Your task to perform on an android device: Go to CNN.com Image 0: 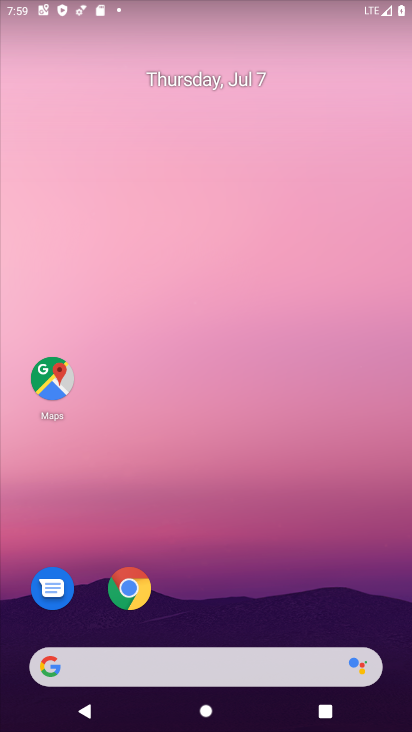
Step 0: drag from (329, 572) to (301, 155)
Your task to perform on an android device: Go to CNN.com Image 1: 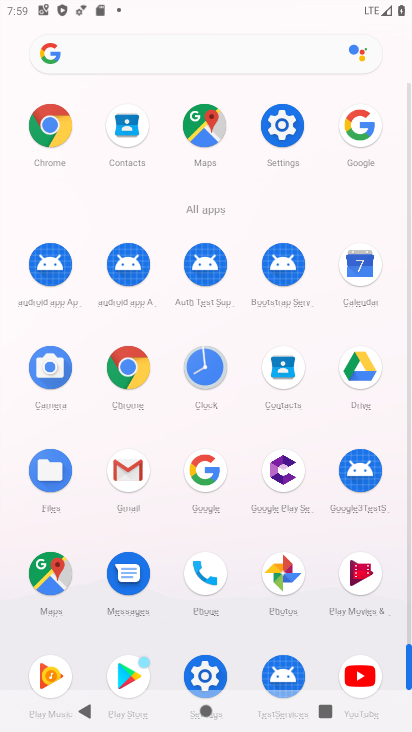
Step 1: click (53, 123)
Your task to perform on an android device: Go to CNN.com Image 2: 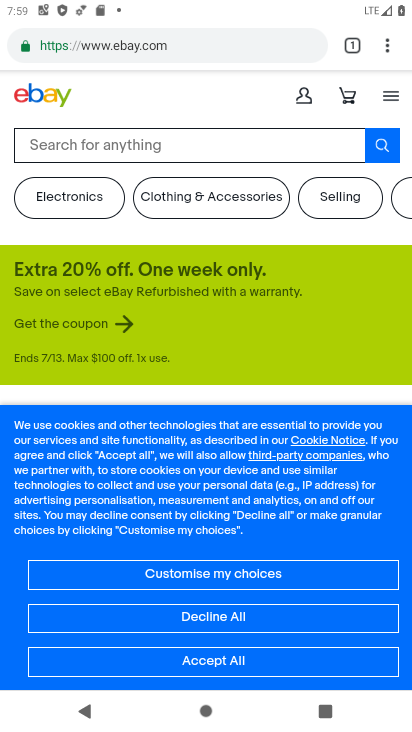
Step 2: click (183, 47)
Your task to perform on an android device: Go to CNN.com Image 3: 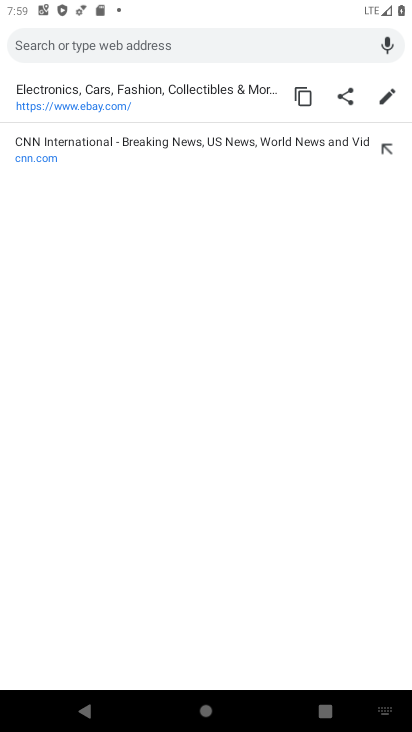
Step 3: click (48, 157)
Your task to perform on an android device: Go to CNN.com Image 4: 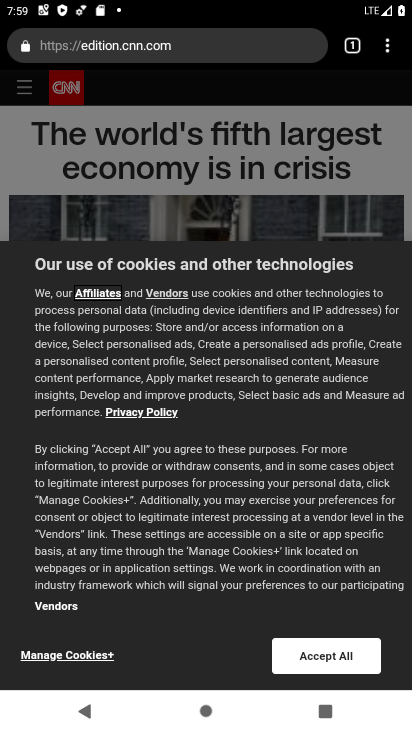
Step 4: task complete